Your task to perform on an android device: toggle data saver in the chrome app Image 0: 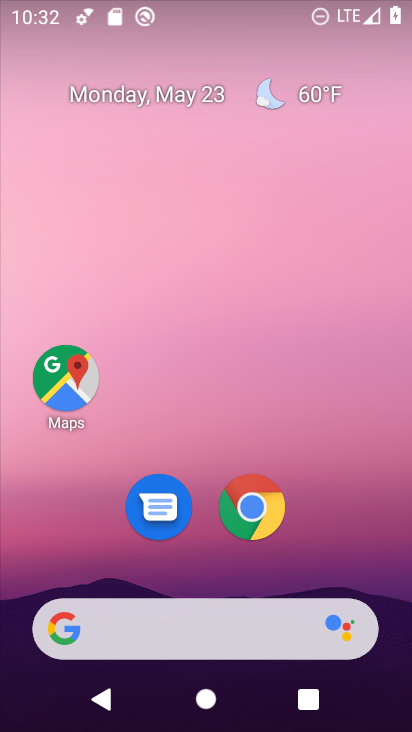
Step 0: click (256, 507)
Your task to perform on an android device: toggle data saver in the chrome app Image 1: 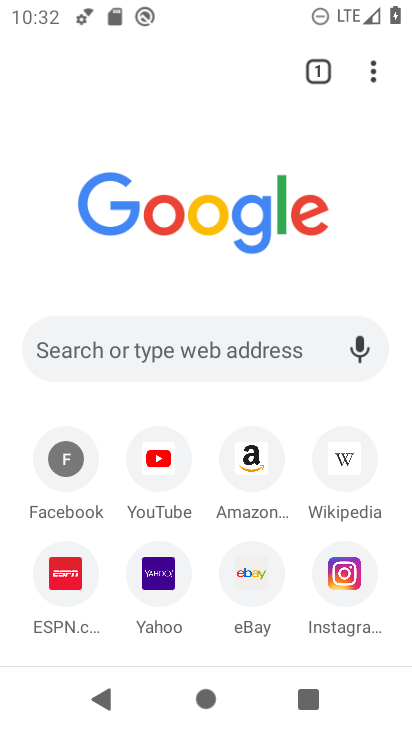
Step 1: click (371, 69)
Your task to perform on an android device: toggle data saver in the chrome app Image 2: 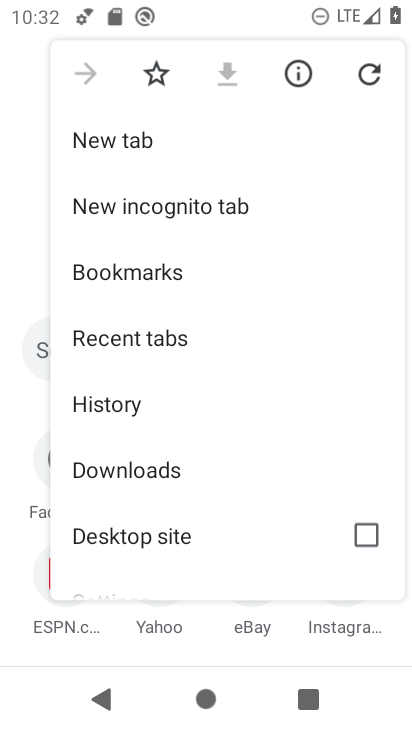
Step 2: drag from (124, 432) to (171, 321)
Your task to perform on an android device: toggle data saver in the chrome app Image 3: 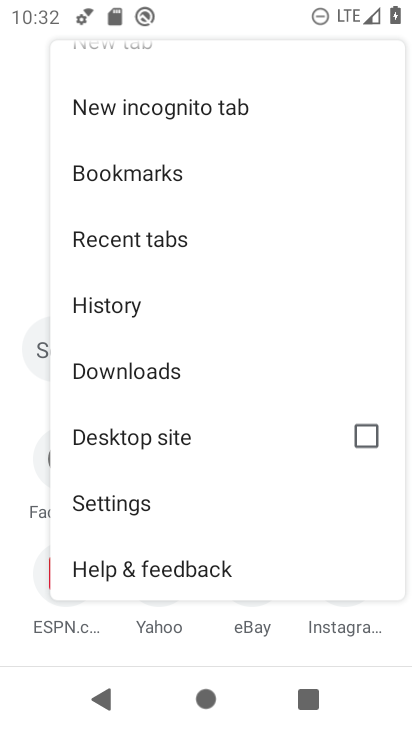
Step 3: drag from (119, 464) to (175, 373)
Your task to perform on an android device: toggle data saver in the chrome app Image 4: 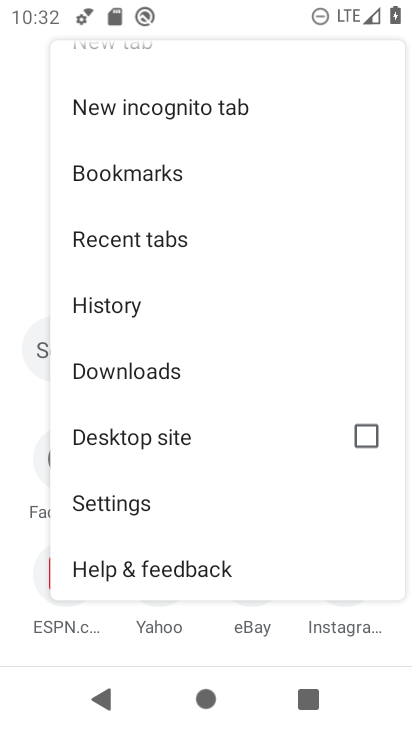
Step 4: click (121, 500)
Your task to perform on an android device: toggle data saver in the chrome app Image 5: 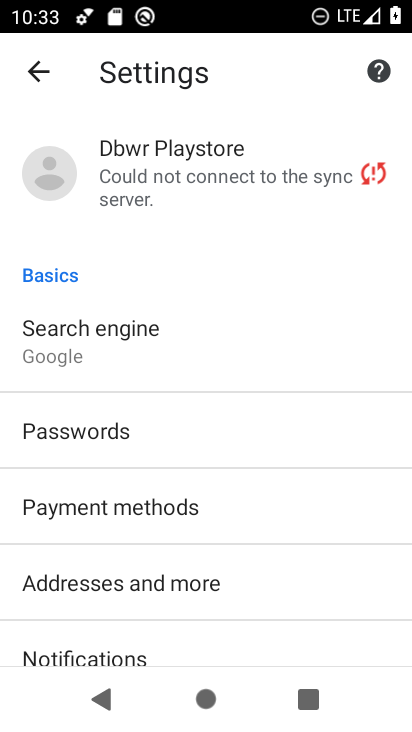
Step 5: drag from (133, 482) to (228, 227)
Your task to perform on an android device: toggle data saver in the chrome app Image 6: 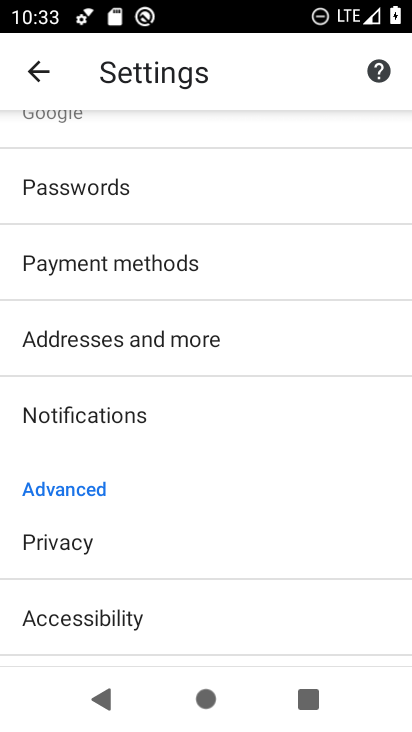
Step 6: drag from (131, 500) to (191, 153)
Your task to perform on an android device: toggle data saver in the chrome app Image 7: 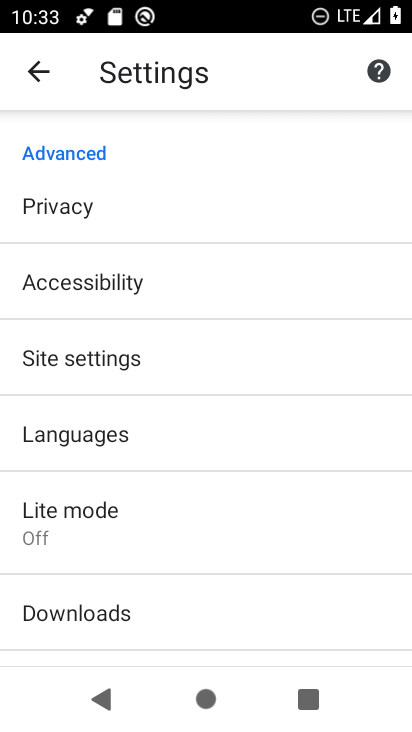
Step 7: click (75, 514)
Your task to perform on an android device: toggle data saver in the chrome app Image 8: 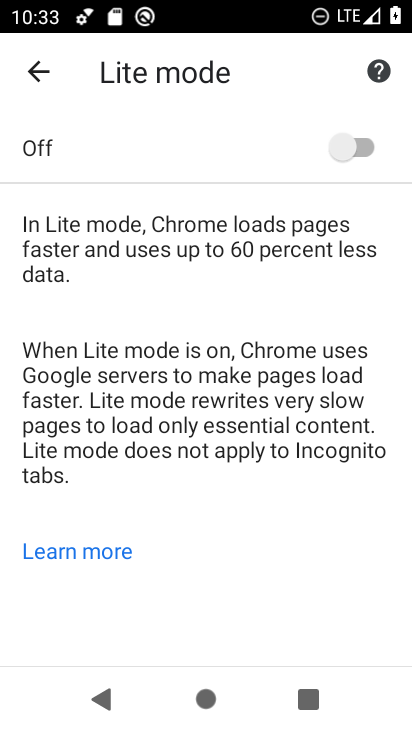
Step 8: click (335, 152)
Your task to perform on an android device: toggle data saver in the chrome app Image 9: 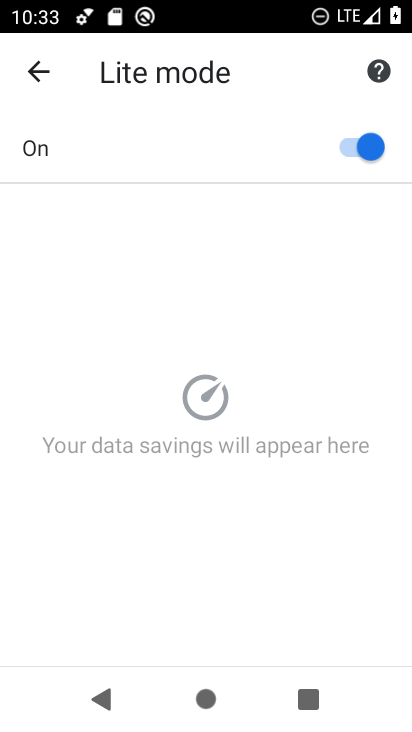
Step 9: task complete